Your task to perform on an android device: Open the web browser Image 0: 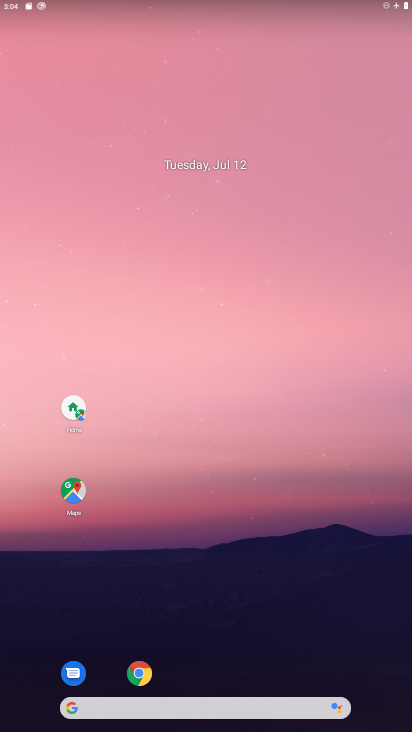
Step 0: press home button
Your task to perform on an android device: Open the web browser Image 1: 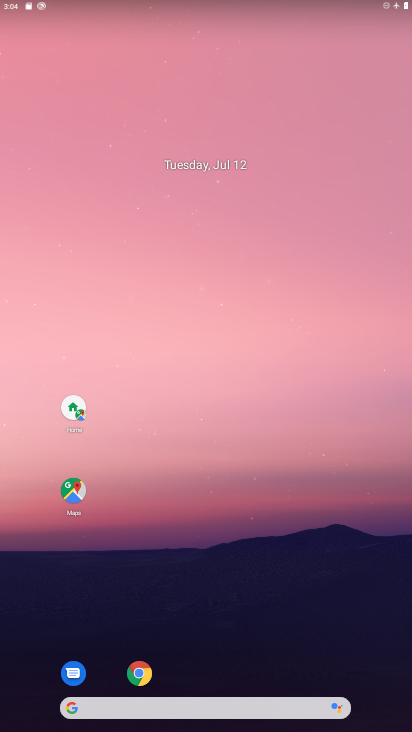
Step 1: drag from (208, 675) to (214, 241)
Your task to perform on an android device: Open the web browser Image 2: 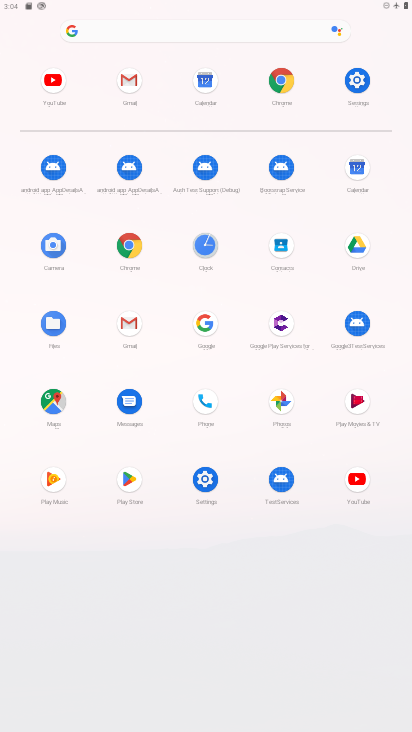
Step 2: click (276, 73)
Your task to perform on an android device: Open the web browser Image 3: 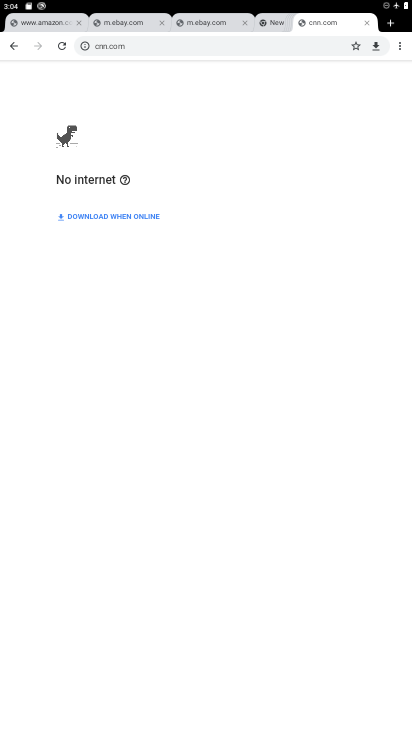
Step 3: task complete